Your task to perform on an android device: Show me popular games on the Play Store Image 0: 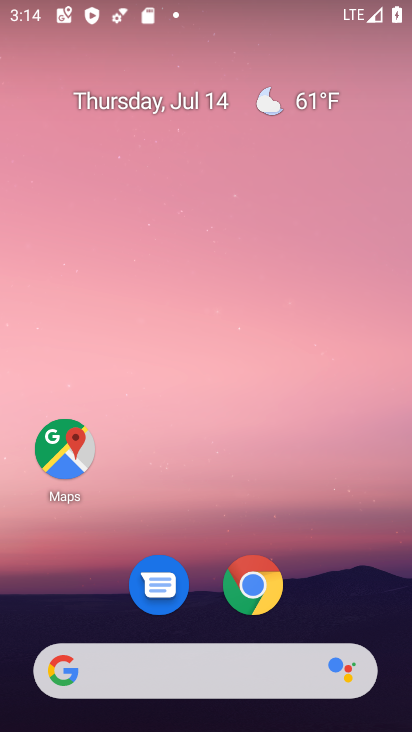
Step 0: drag from (207, 516) to (158, 27)
Your task to perform on an android device: Show me popular games on the Play Store Image 1: 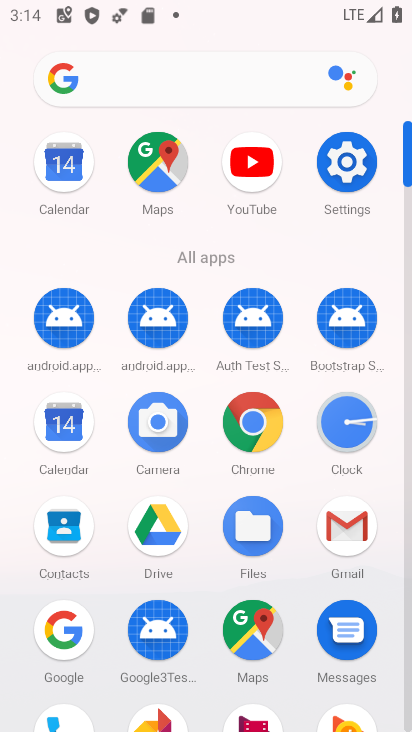
Step 1: drag from (198, 491) to (200, 90)
Your task to perform on an android device: Show me popular games on the Play Store Image 2: 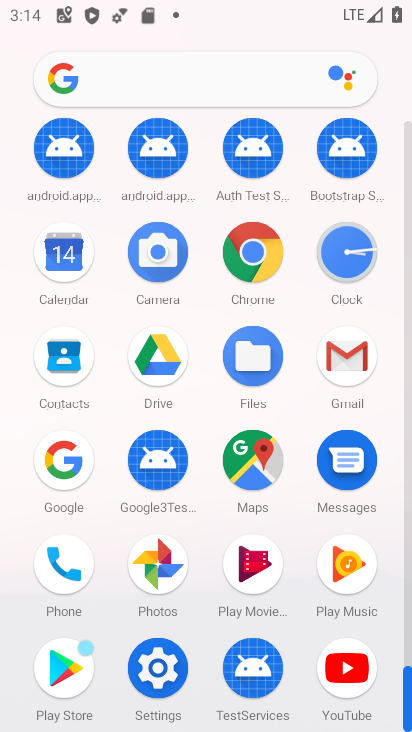
Step 2: click (57, 655)
Your task to perform on an android device: Show me popular games on the Play Store Image 3: 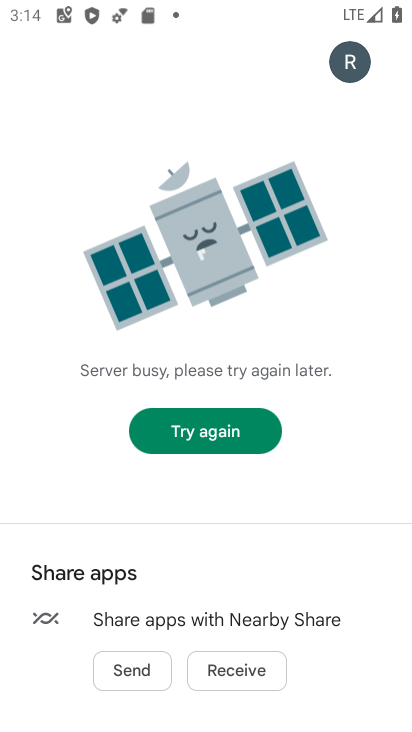
Step 3: click (261, 438)
Your task to perform on an android device: Show me popular games on the Play Store Image 4: 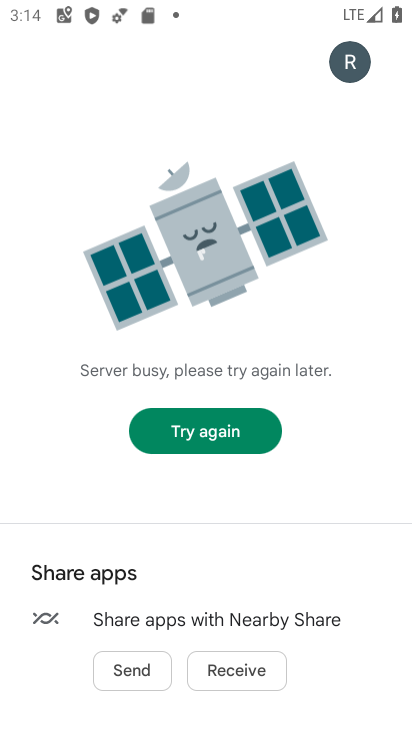
Step 4: click (261, 436)
Your task to perform on an android device: Show me popular games on the Play Store Image 5: 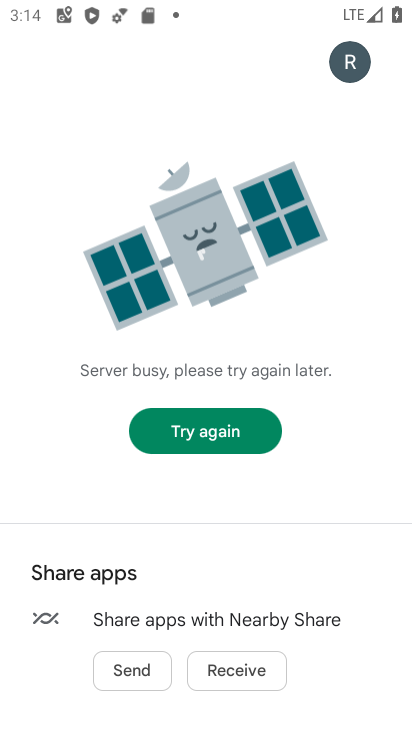
Step 5: task complete